Your task to perform on an android device: find which apps use the phone's location Image 0: 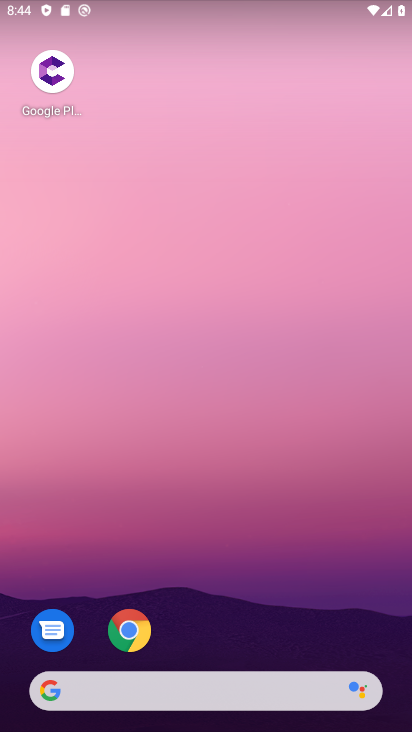
Step 0: drag from (211, 686) to (169, 71)
Your task to perform on an android device: find which apps use the phone's location Image 1: 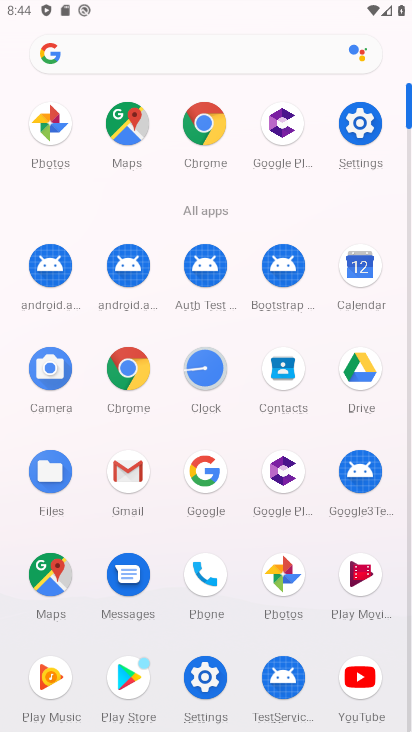
Step 1: click (342, 136)
Your task to perform on an android device: find which apps use the phone's location Image 2: 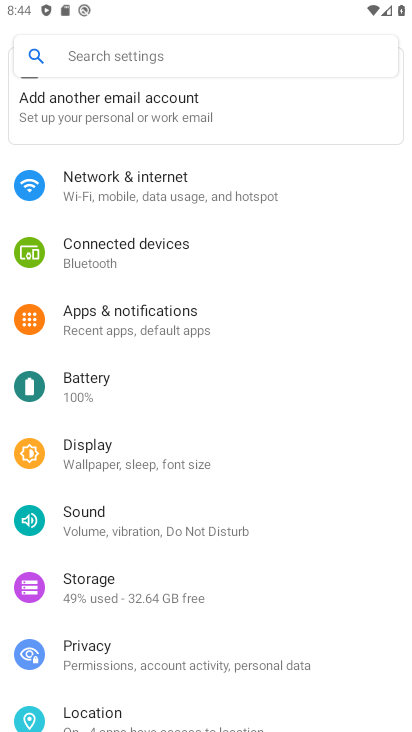
Step 2: click (119, 718)
Your task to perform on an android device: find which apps use the phone's location Image 3: 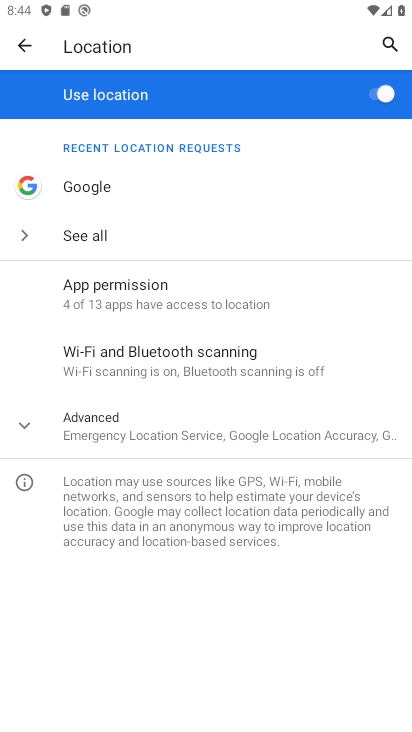
Step 3: click (119, 304)
Your task to perform on an android device: find which apps use the phone's location Image 4: 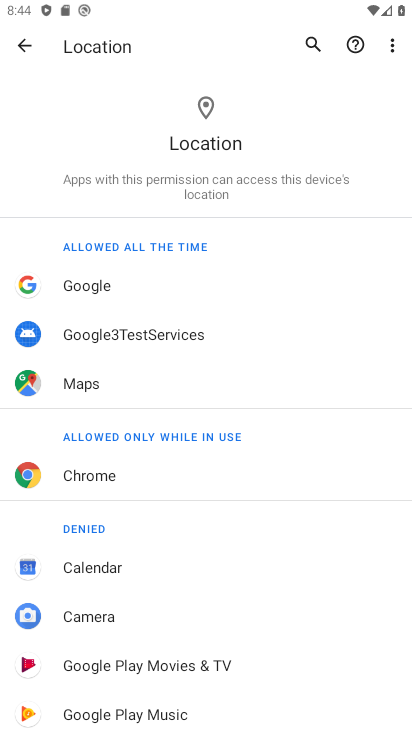
Step 4: task complete